Your task to perform on an android device: Search for vegetarian restaurants on Maps Image 0: 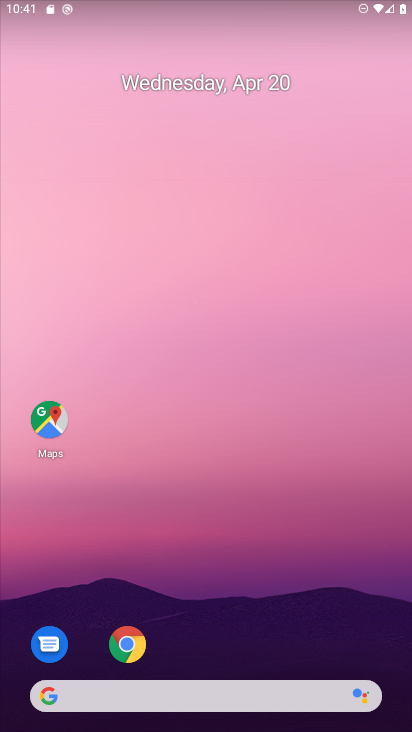
Step 0: drag from (281, 184) to (240, 48)
Your task to perform on an android device: Search for vegetarian restaurants on Maps Image 1: 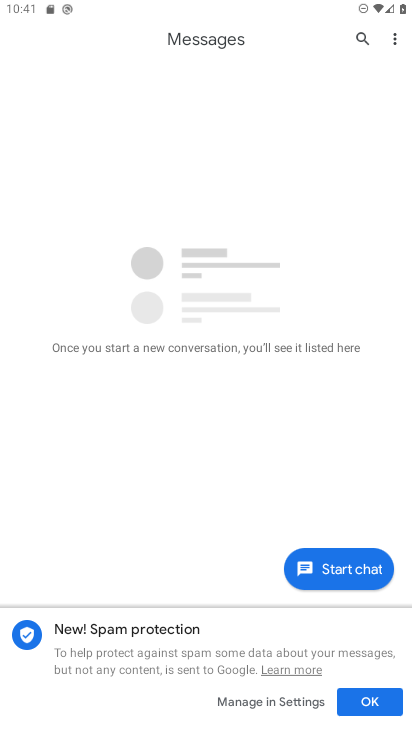
Step 1: press home button
Your task to perform on an android device: Search for vegetarian restaurants on Maps Image 2: 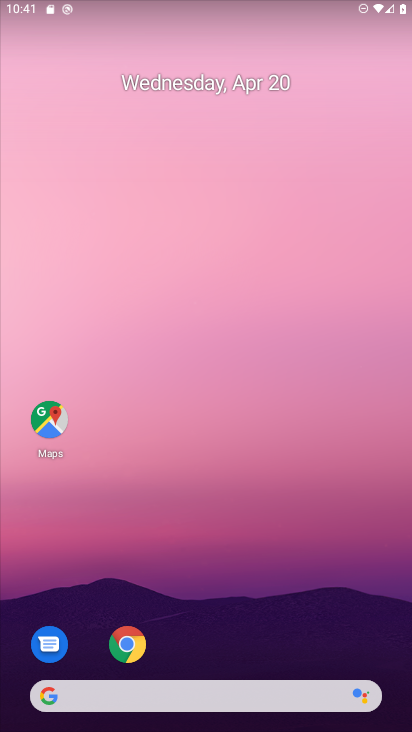
Step 2: drag from (306, 614) to (247, 122)
Your task to perform on an android device: Search for vegetarian restaurants on Maps Image 3: 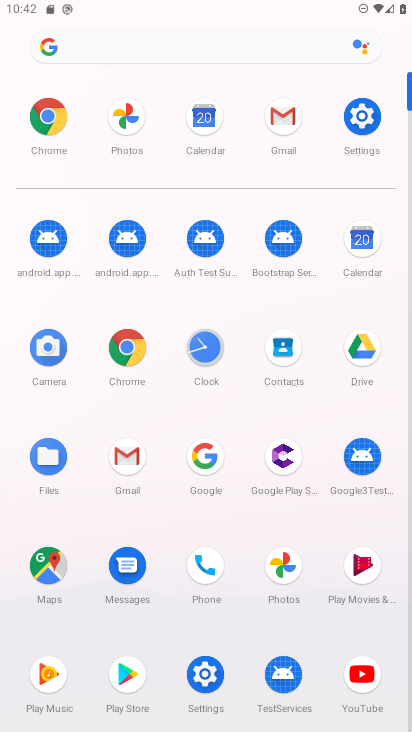
Step 3: click (55, 569)
Your task to perform on an android device: Search for vegetarian restaurants on Maps Image 4: 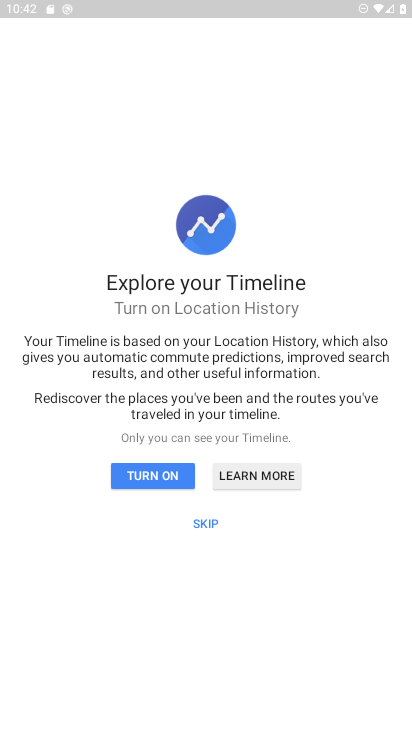
Step 4: press back button
Your task to perform on an android device: Search for vegetarian restaurants on Maps Image 5: 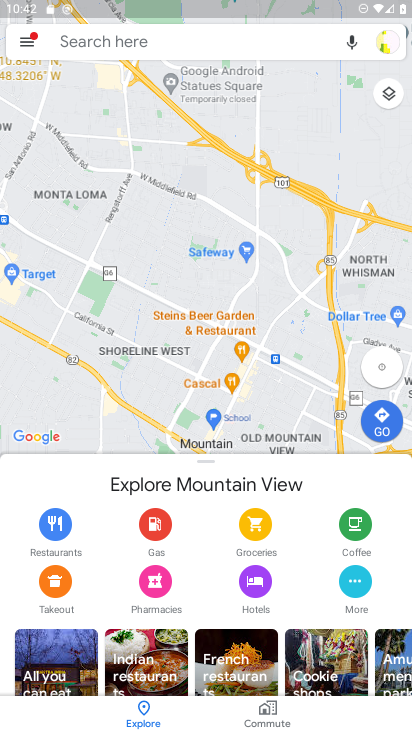
Step 5: click (108, 43)
Your task to perform on an android device: Search for vegetarian restaurants on Maps Image 6: 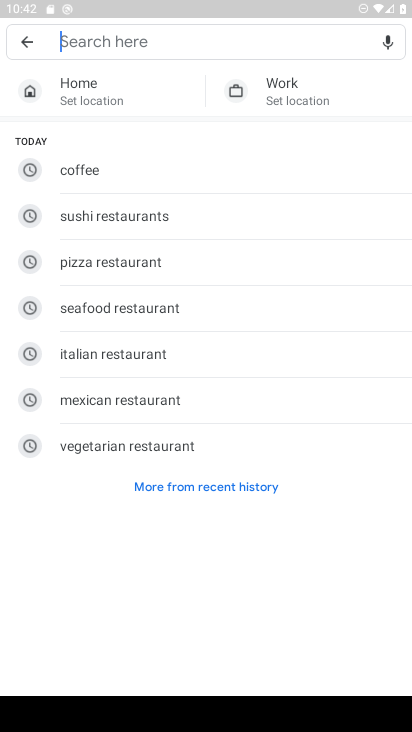
Step 6: click (138, 442)
Your task to perform on an android device: Search for vegetarian restaurants on Maps Image 7: 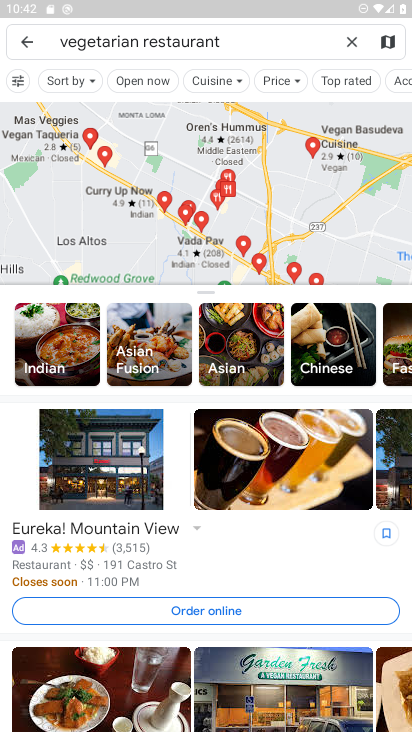
Step 7: task complete